Your task to perform on an android device: turn off sleep mode Image 0: 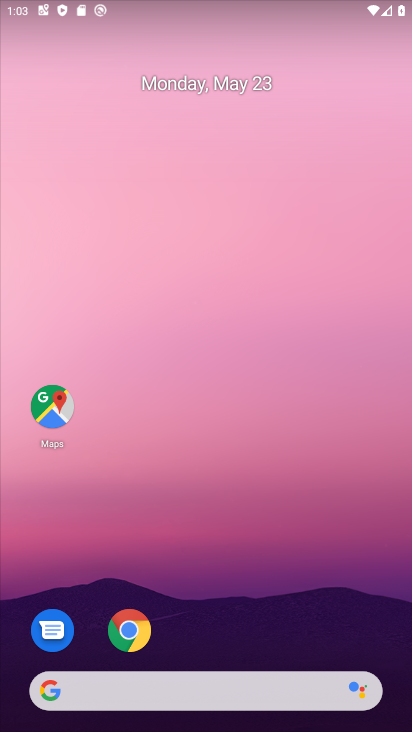
Step 0: drag from (363, 623) to (374, 135)
Your task to perform on an android device: turn off sleep mode Image 1: 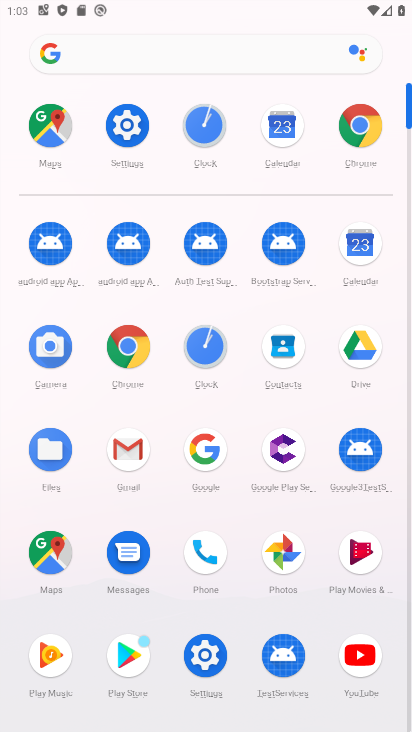
Step 1: click (117, 126)
Your task to perform on an android device: turn off sleep mode Image 2: 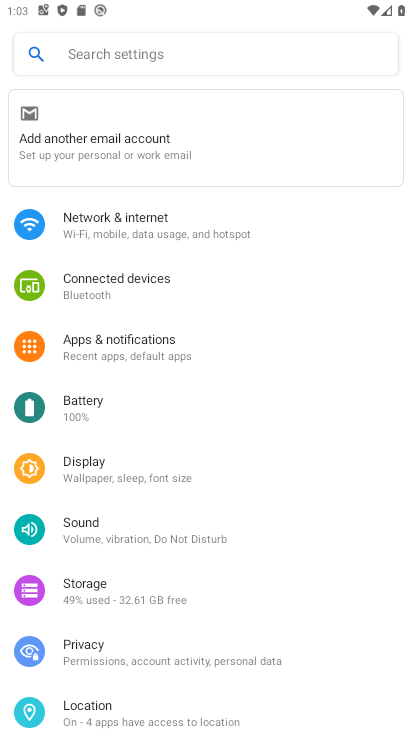
Step 2: click (168, 58)
Your task to perform on an android device: turn off sleep mode Image 3: 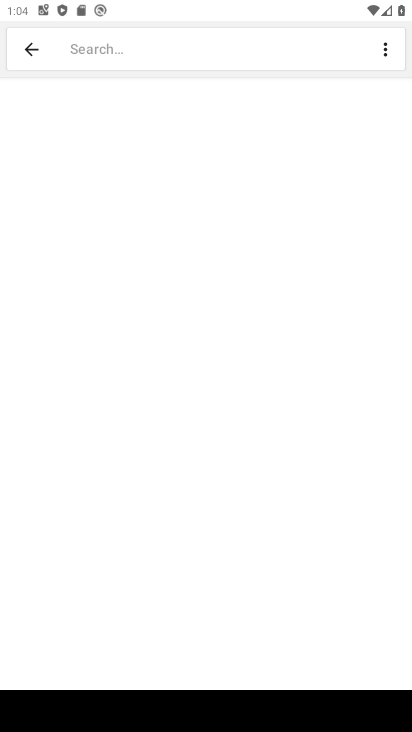
Step 3: type "sleep mode"
Your task to perform on an android device: turn off sleep mode Image 4: 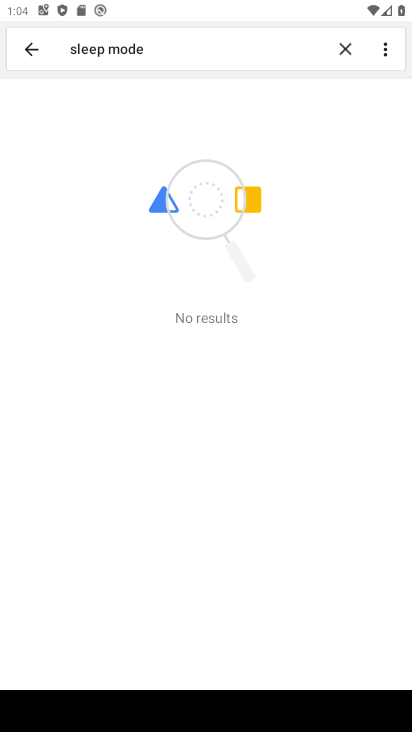
Step 4: task complete